Your task to perform on an android device: turn off notifications settings in the gmail app Image 0: 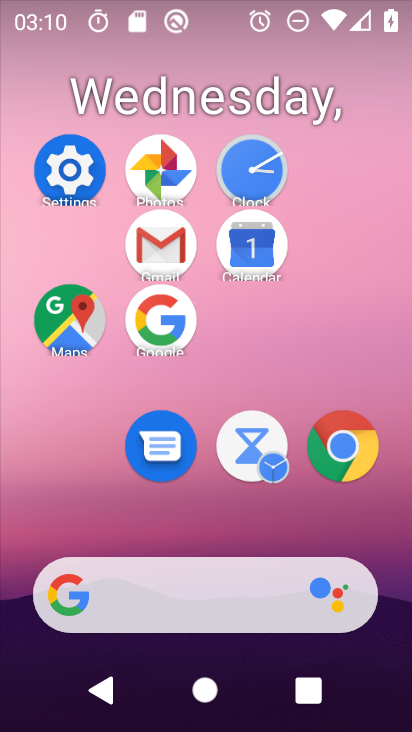
Step 0: click (162, 254)
Your task to perform on an android device: turn off notifications settings in the gmail app Image 1: 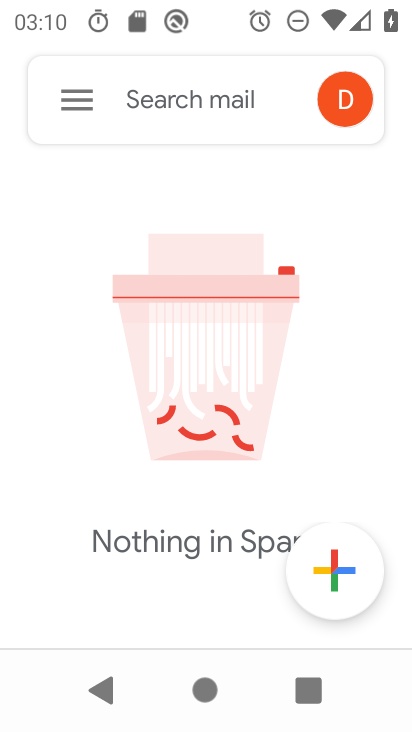
Step 1: click (77, 96)
Your task to perform on an android device: turn off notifications settings in the gmail app Image 2: 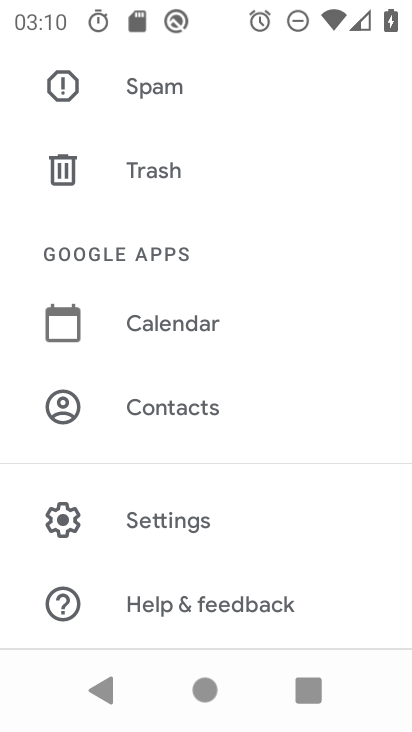
Step 2: click (209, 529)
Your task to perform on an android device: turn off notifications settings in the gmail app Image 3: 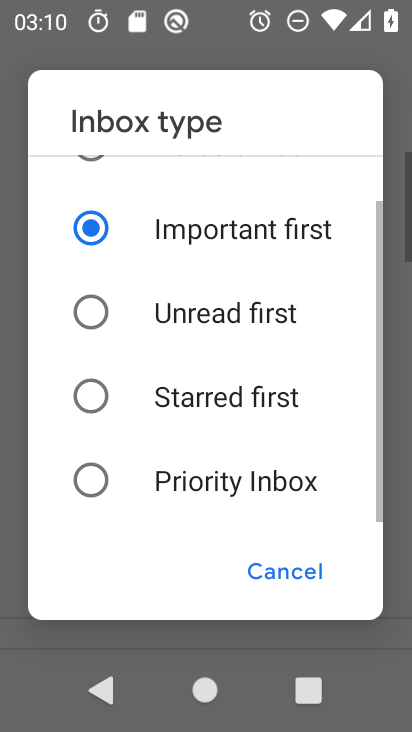
Step 3: click (247, 549)
Your task to perform on an android device: turn off notifications settings in the gmail app Image 4: 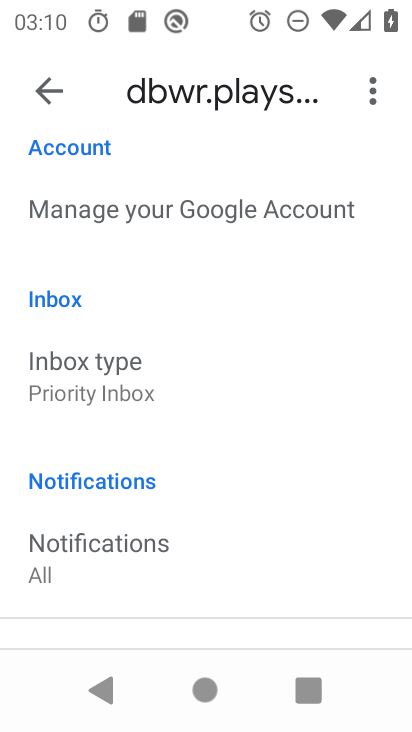
Step 4: click (186, 544)
Your task to perform on an android device: turn off notifications settings in the gmail app Image 5: 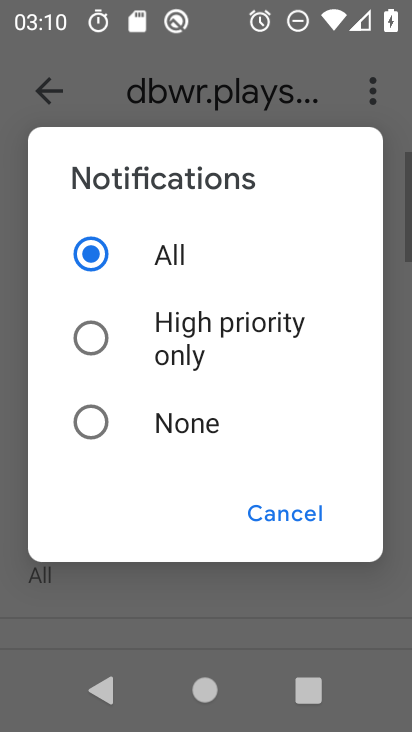
Step 5: click (162, 415)
Your task to perform on an android device: turn off notifications settings in the gmail app Image 6: 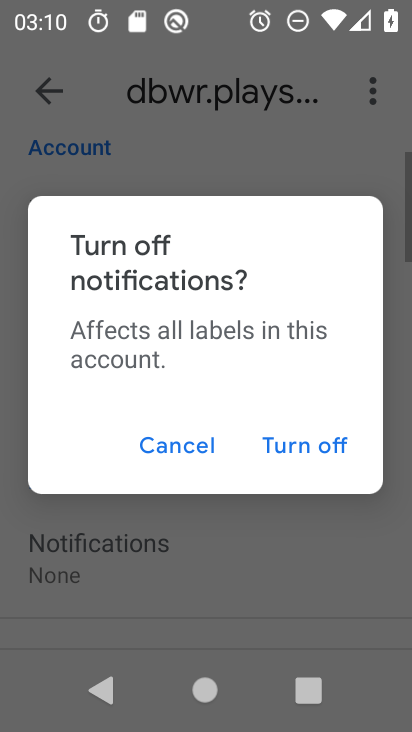
Step 6: task complete